Your task to perform on an android device: see sites visited before in the chrome app Image 0: 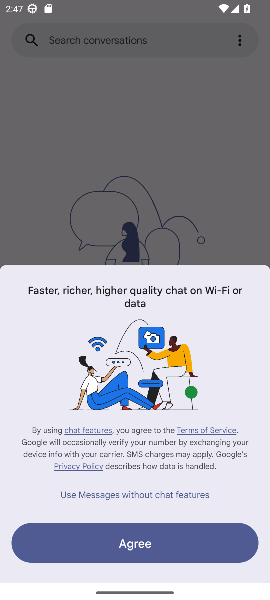
Step 0: press home button
Your task to perform on an android device: see sites visited before in the chrome app Image 1: 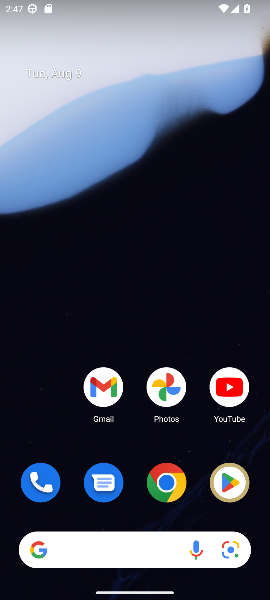
Step 1: click (174, 486)
Your task to perform on an android device: see sites visited before in the chrome app Image 2: 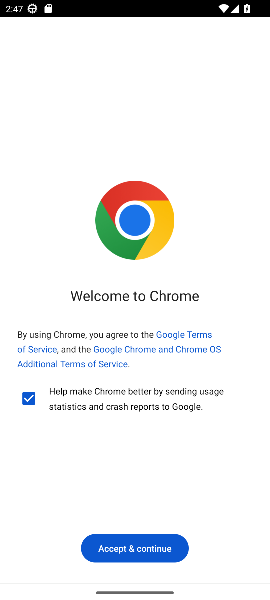
Step 2: click (162, 547)
Your task to perform on an android device: see sites visited before in the chrome app Image 3: 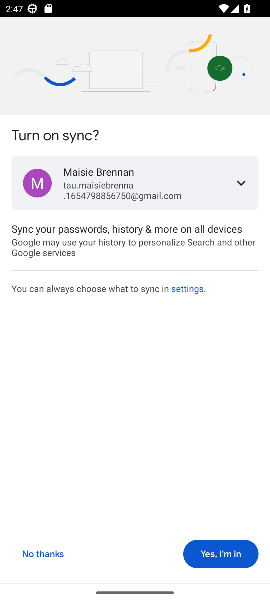
Step 3: click (220, 551)
Your task to perform on an android device: see sites visited before in the chrome app Image 4: 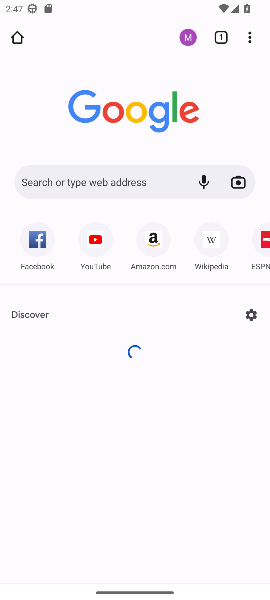
Step 4: click (248, 37)
Your task to perform on an android device: see sites visited before in the chrome app Image 5: 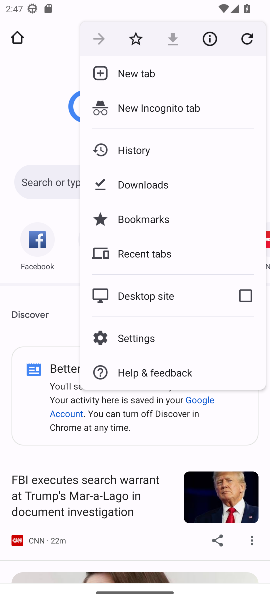
Step 5: click (177, 251)
Your task to perform on an android device: see sites visited before in the chrome app Image 6: 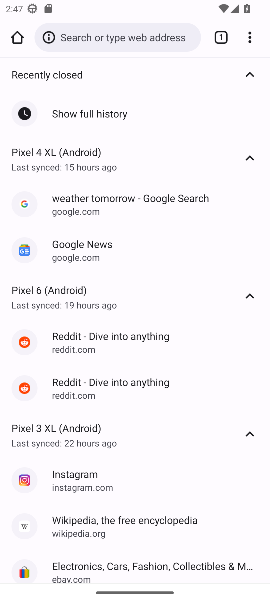
Step 6: task complete